Your task to perform on an android device: Open the Play Movies app and select the watchlist tab. Image 0: 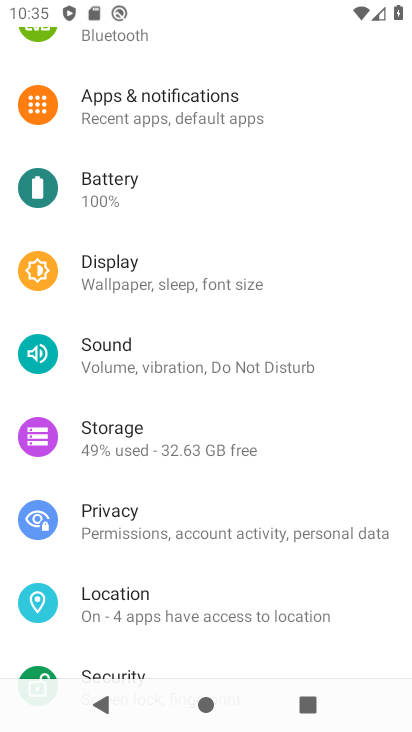
Step 0: press home button
Your task to perform on an android device: Open the Play Movies app and select the watchlist tab. Image 1: 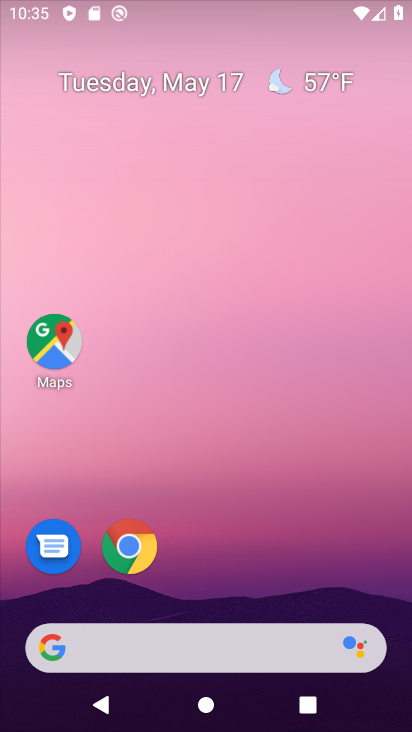
Step 1: drag from (297, 574) to (331, 150)
Your task to perform on an android device: Open the Play Movies app and select the watchlist tab. Image 2: 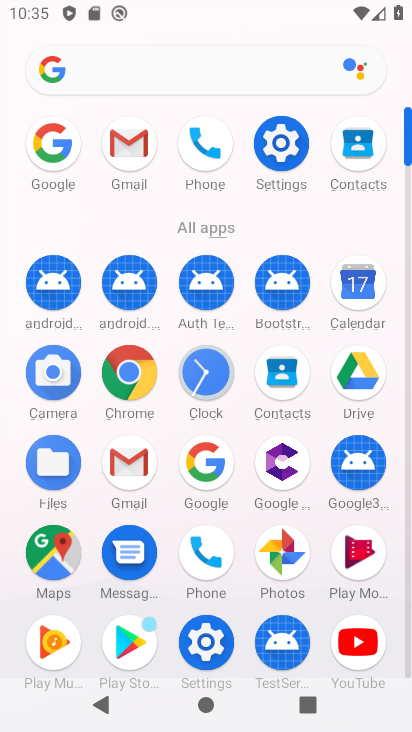
Step 2: click (366, 565)
Your task to perform on an android device: Open the Play Movies app and select the watchlist tab. Image 3: 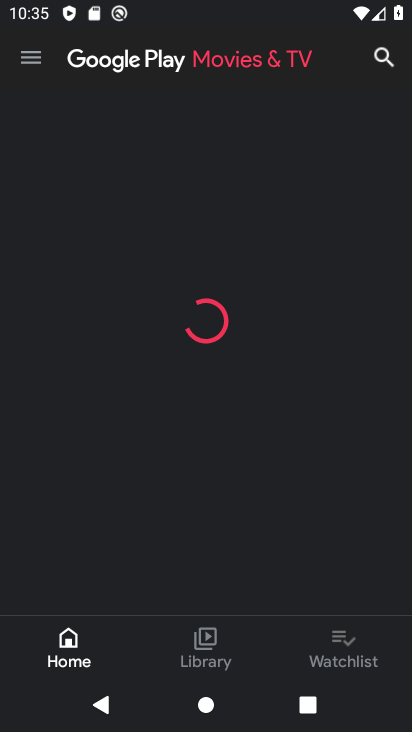
Step 3: click (353, 666)
Your task to perform on an android device: Open the Play Movies app and select the watchlist tab. Image 4: 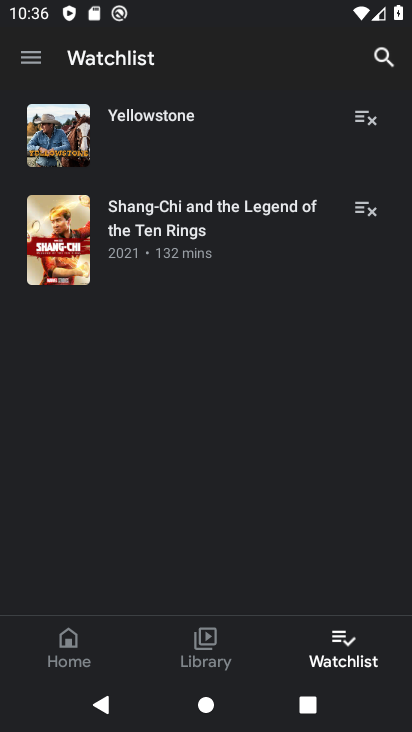
Step 4: task complete